Your task to perform on an android device: allow notifications from all sites in the chrome app Image 0: 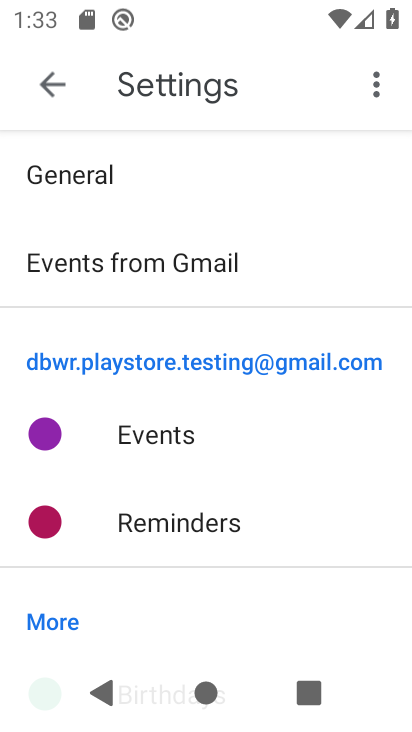
Step 0: press home button
Your task to perform on an android device: allow notifications from all sites in the chrome app Image 1: 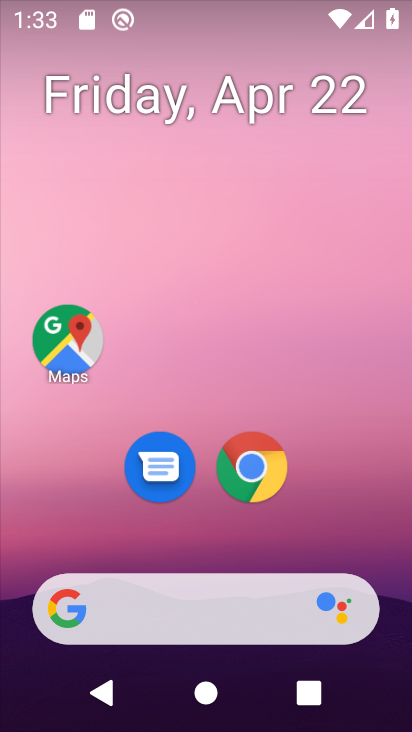
Step 1: click (263, 481)
Your task to perform on an android device: allow notifications from all sites in the chrome app Image 2: 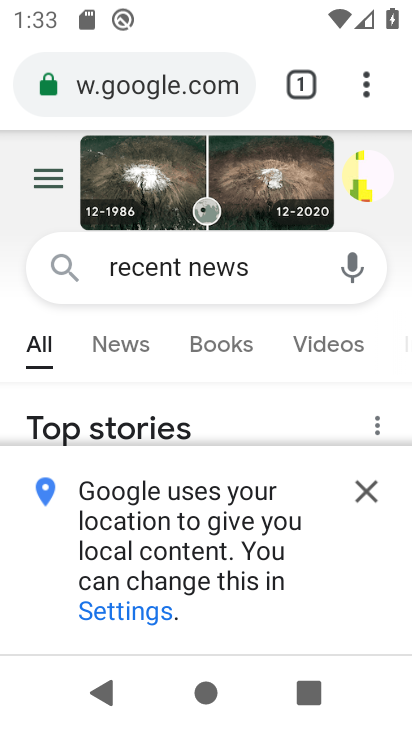
Step 2: drag from (369, 92) to (203, 514)
Your task to perform on an android device: allow notifications from all sites in the chrome app Image 3: 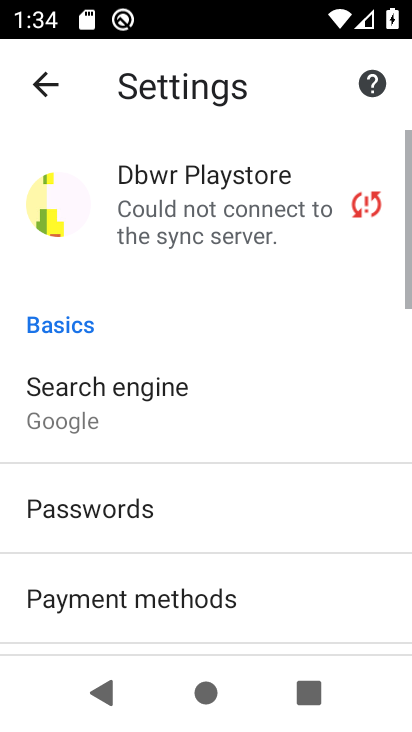
Step 3: drag from (245, 548) to (222, 321)
Your task to perform on an android device: allow notifications from all sites in the chrome app Image 4: 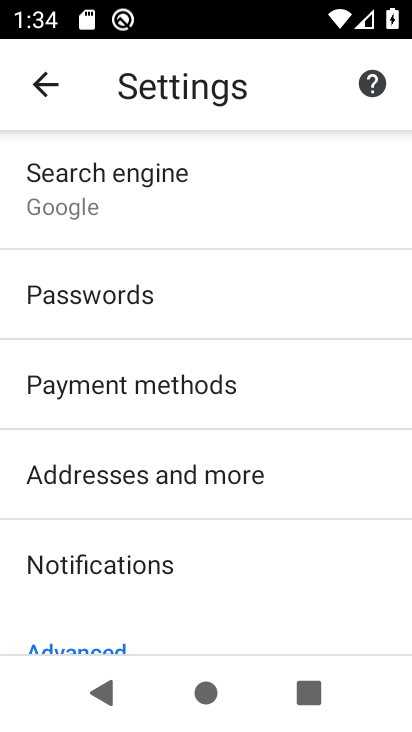
Step 4: click (172, 566)
Your task to perform on an android device: allow notifications from all sites in the chrome app Image 5: 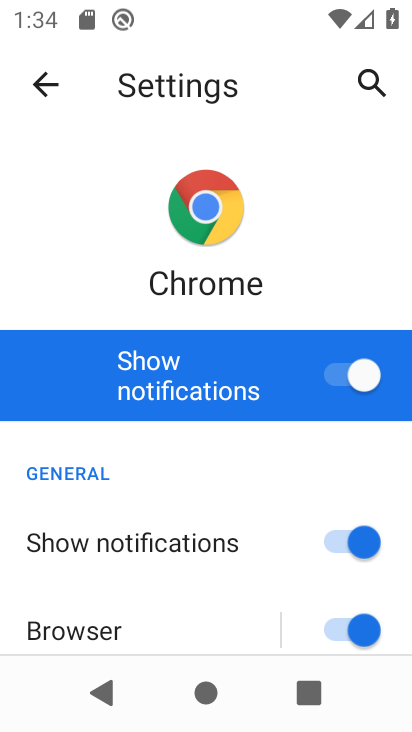
Step 5: task complete